Your task to perform on an android device: turn vacation reply on in the gmail app Image 0: 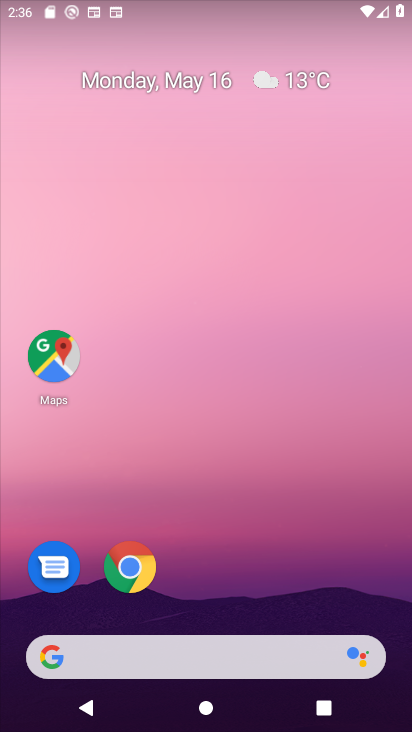
Step 0: drag from (264, 596) to (252, 167)
Your task to perform on an android device: turn vacation reply on in the gmail app Image 1: 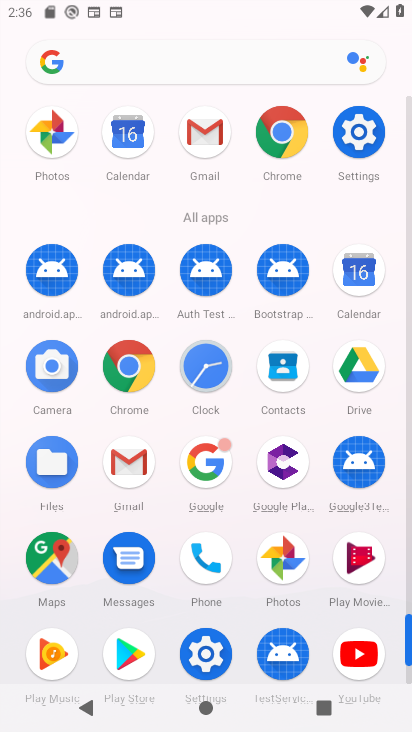
Step 1: click (127, 460)
Your task to perform on an android device: turn vacation reply on in the gmail app Image 2: 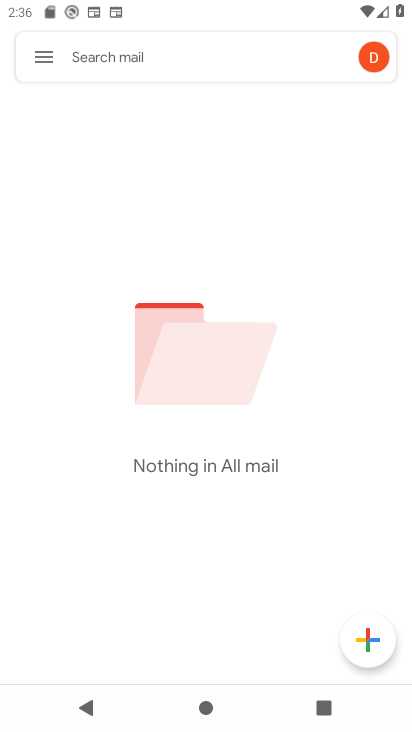
Step 2: click (39, 59)
Your task to perform on an android device: turn vacation reply on in the gmail app Image 3: 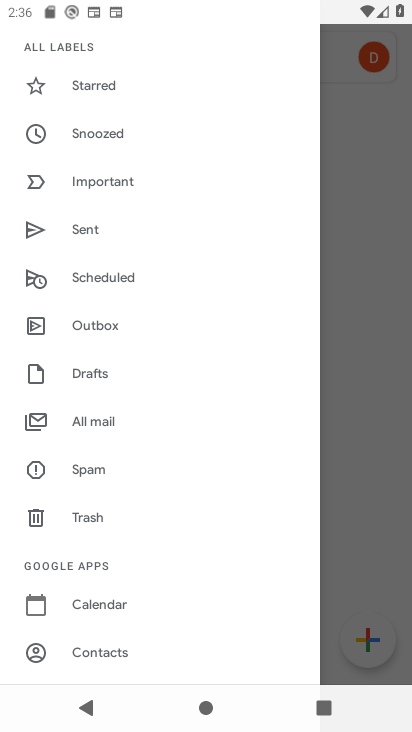
Step 3: drag from (136, 592) to (134, 303)
Your task to perform on an android device: turn vacation reply on in the gmail app Image 4: 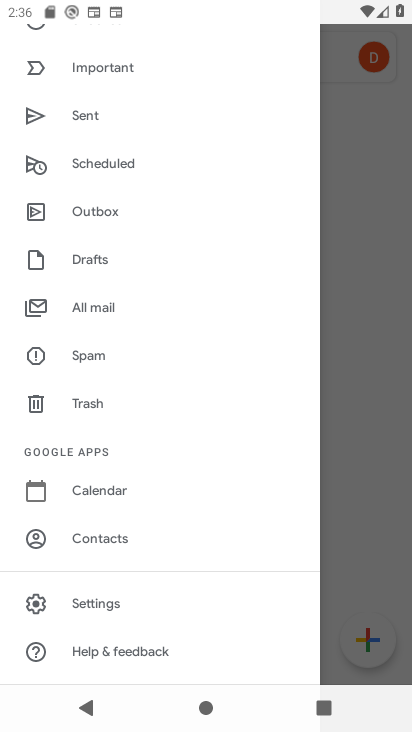
Step 4: click (109, 608)
Your task to perform on an android device: turn vacation reply on in the gmail app Image 5: 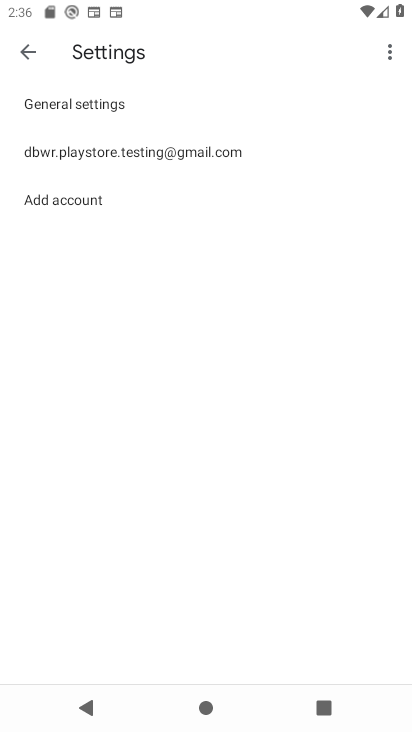
Step 5: click (110, 147)
Your task to perform on an android device: turn vacation reply on in the gmail app Image 6: 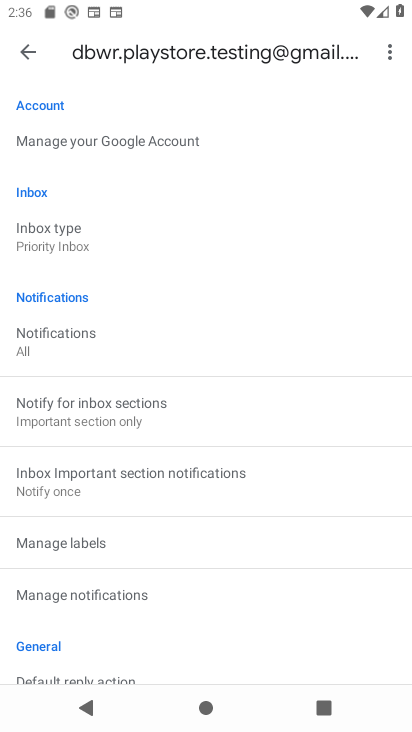
Step 6: task complete